Your task to perform on an android device: What's on my calendar today? Image 0: 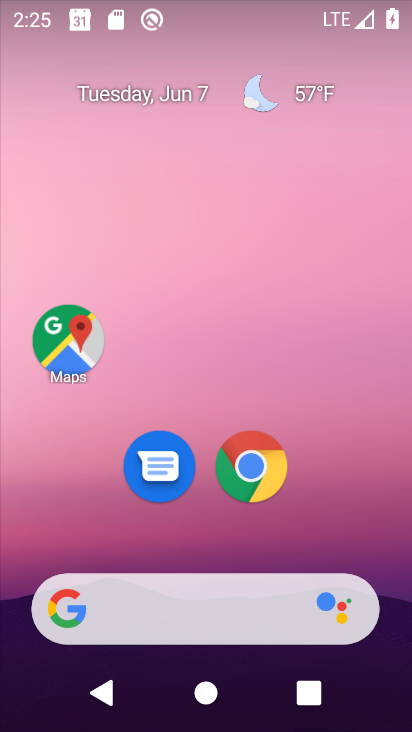
Step 0: drag from (148, 562) to (224, 45)
Your task to perform on an android device: What's on my calendar today? Image 1: 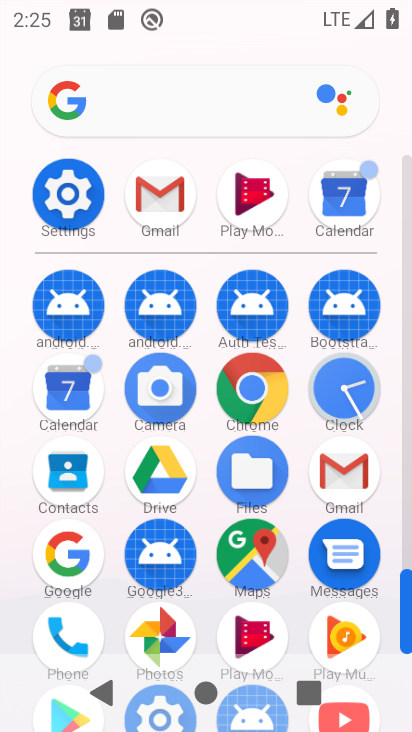
Step 1: click (356, 206)
Your task to perform on an android device: What's on my calendar today? Image 2: 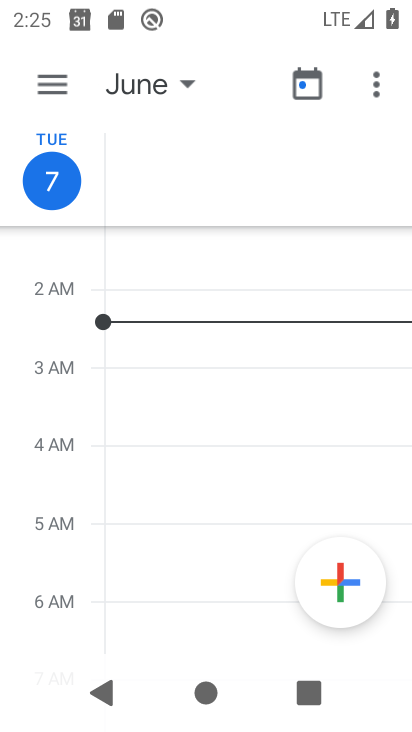
Step 2: click (66, 82)
Your task to perform on an android device: What's on my calendar today? Image 3: 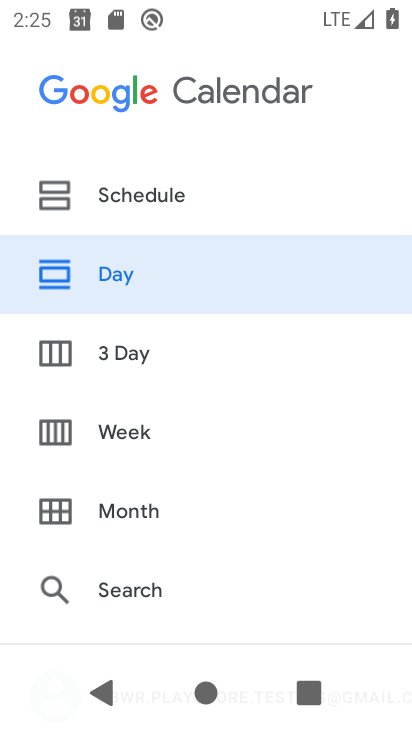
Step 3: click (136, 211)
Your task to perform on an android device: What's on my calendar today? Image 4: 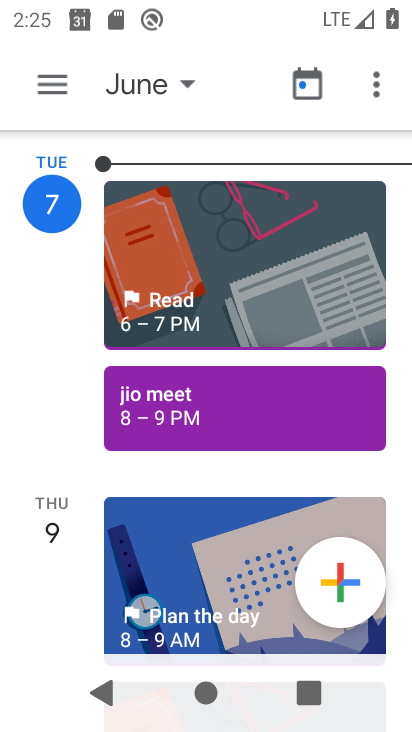
Step 4: click (207, 406)
Your task to perform on an android device: What's on my calendar today? Image 5: 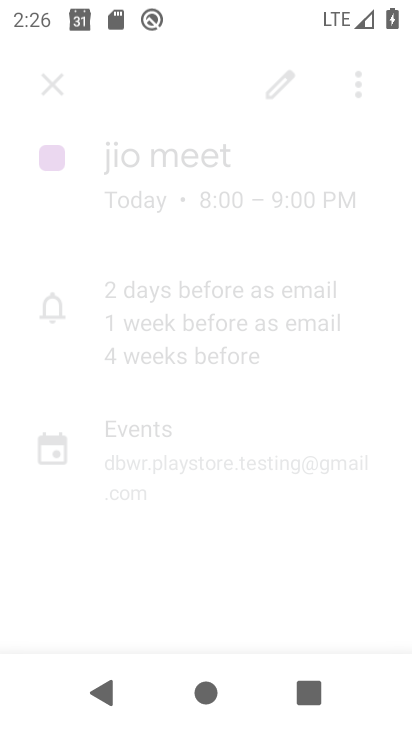
Step 5: task complete